Your task to perform on an android device: Open Google Maps Image 0: 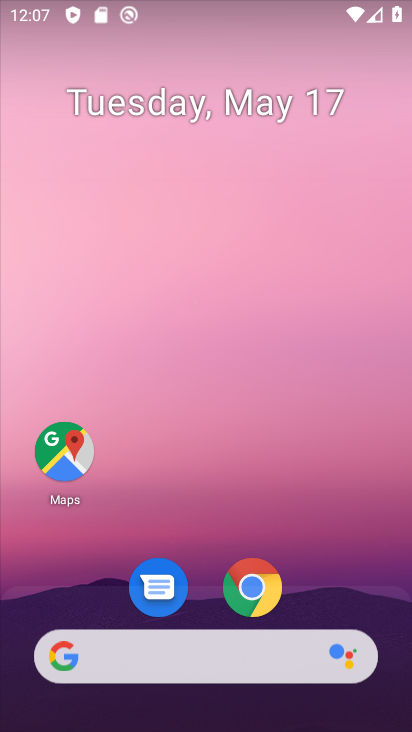
Step 0: click (71, 459)
Your task to perform on an android device: Open Google Maps Image 1: 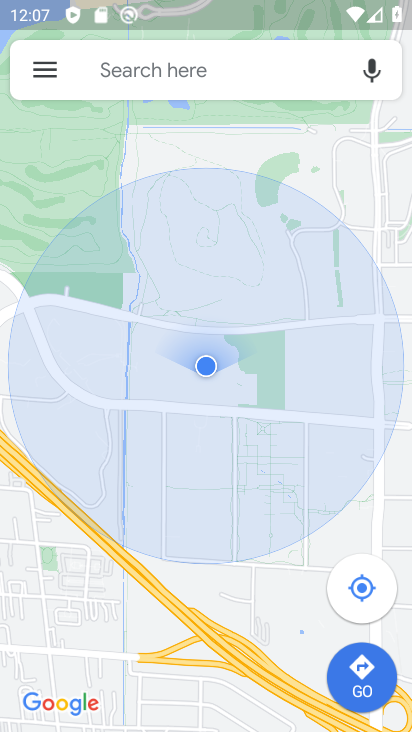
Step 1: task complete